Your task to perform on an android device: Search for vegetarian restaurants on Maps Image 0: 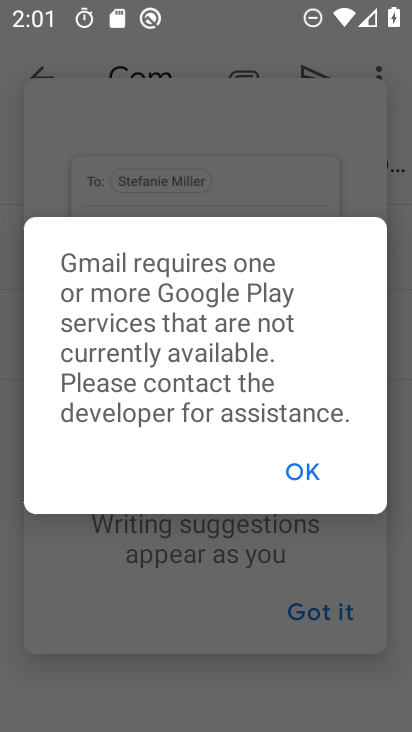
Step 0: press home button
Your task to perform on an android device: Search for vegetarian restaurants on Maps Image 1: 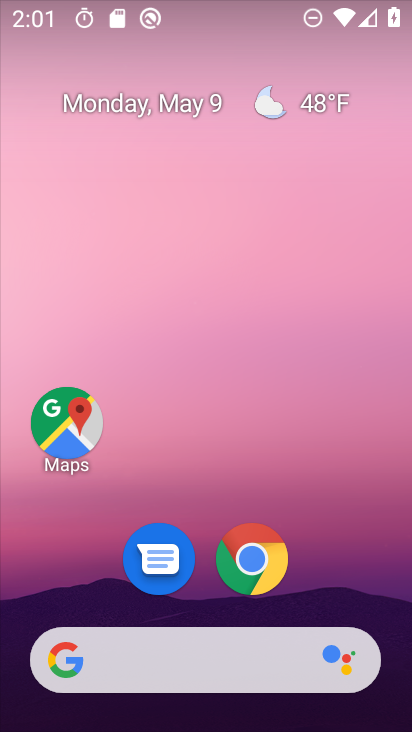
Step 1: drag from (206, 600) to (206, 40)
Your task to perform on an android device: Search for vegetarian restaurants on Maps Image 2: 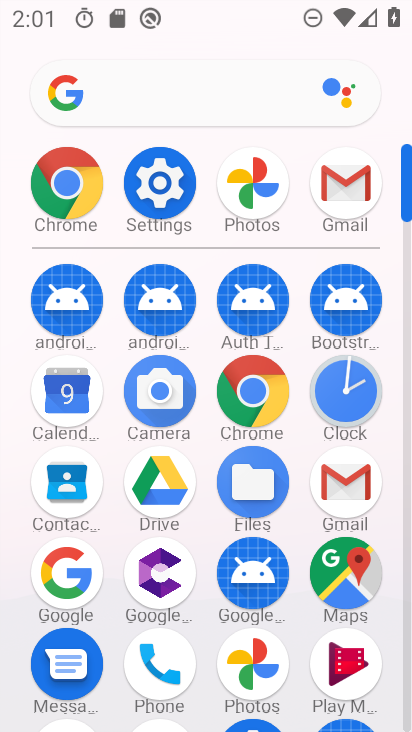
Step 2: click (336, 576)
Your task to perform on an android device: Search for vegetarian restaurants on Maps Image 3: 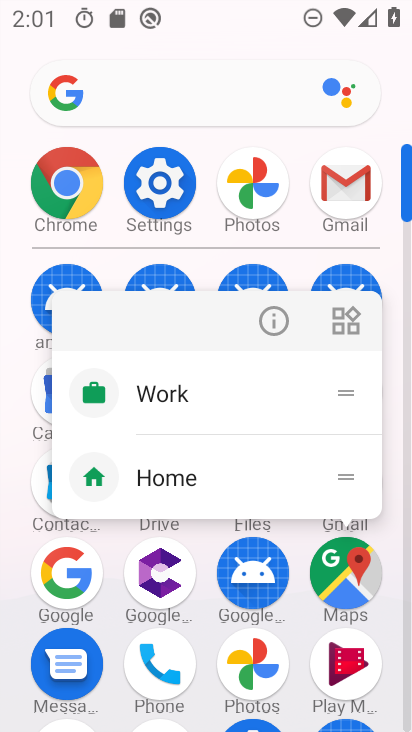
Step 3: click (273, 337)
Your task to perform on an android device: Search for vegetarian restaurants on Maps Image 4: 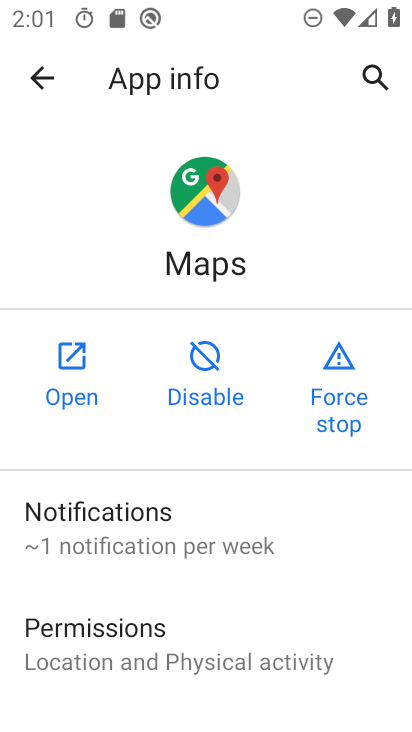
Step 4: click (71, 383)
Your task to perform on an android device: Search for vegetarian restaurants on Maps Image 5: 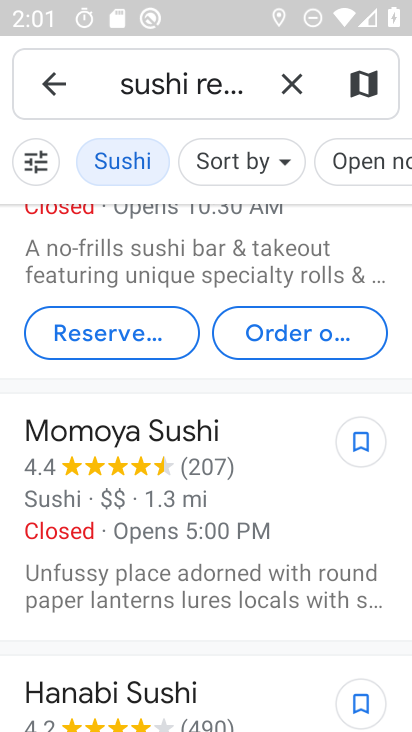
Step 5: drag from (202, 539) to (225, 183)
Your task to perform on an android device: Search for vegetarian restaurants on Maps Image 6: 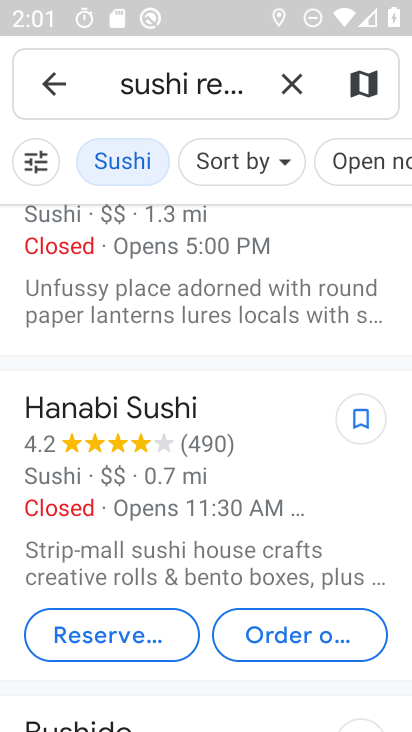
Step 6: drag from (207, 615) to (230, 153)
Your task to perform on an android device: Search for vegetarian restaurants on Maps Image 7: 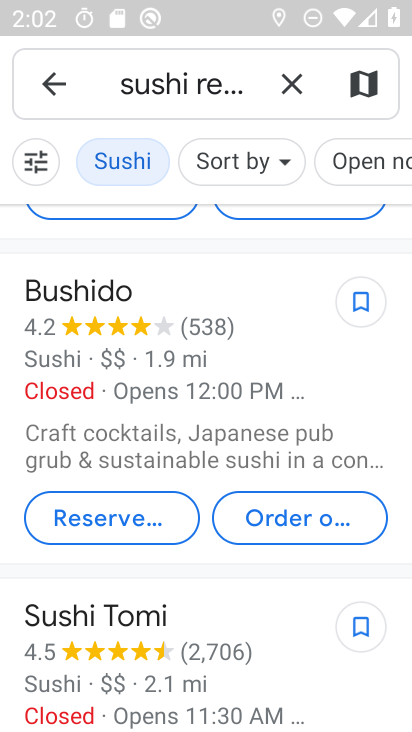
Step 7: click (286, 96)
Your task to perform on an android device: Search for vegetarian restaurants on Maps Image 8: 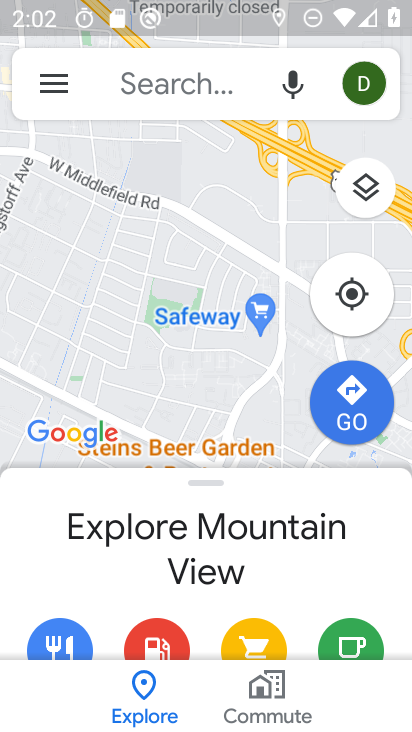
Step 8: drag from (278, 569) to (228, 210)
Your task to perform on an android device: Search for vegetarian restaurants on Maps Image 9: 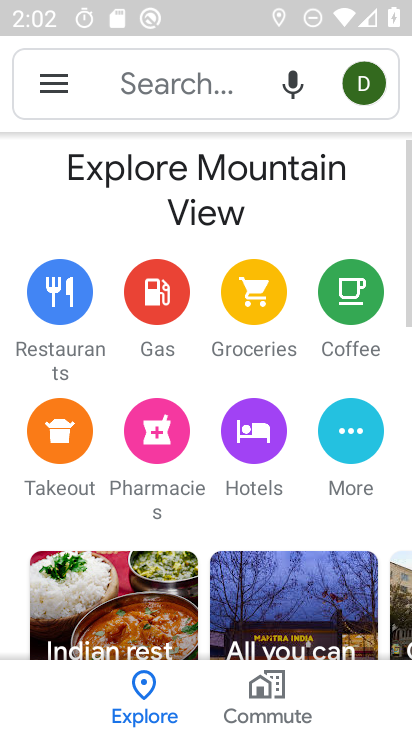
Step 9: click (192, 89)
Your task to perform on an android device: Search for vegetarian restaurants on Maps Image 10: 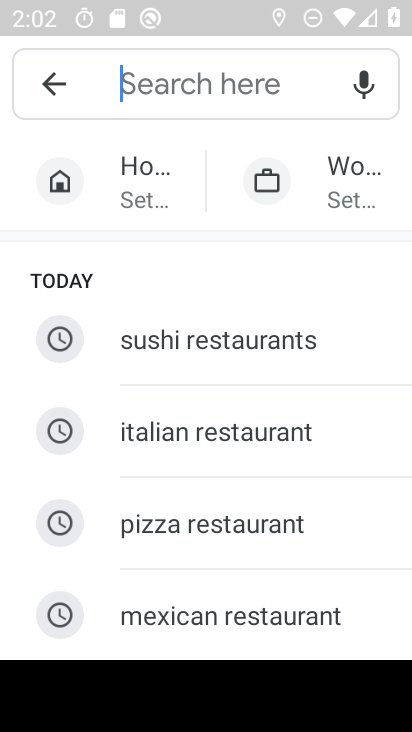
Step 10: drag from (191, 564) to (239, 117)
Your task to perform on an android device: Search for vegetarian restaurants on Maps Image 11: 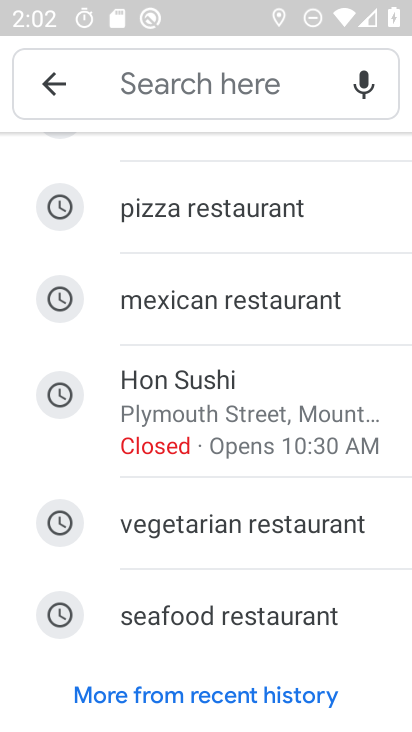
Step 11: click (199, 534)
Your task to perform on an android device: Search for vegetarian restaurants on Maps Image 12: 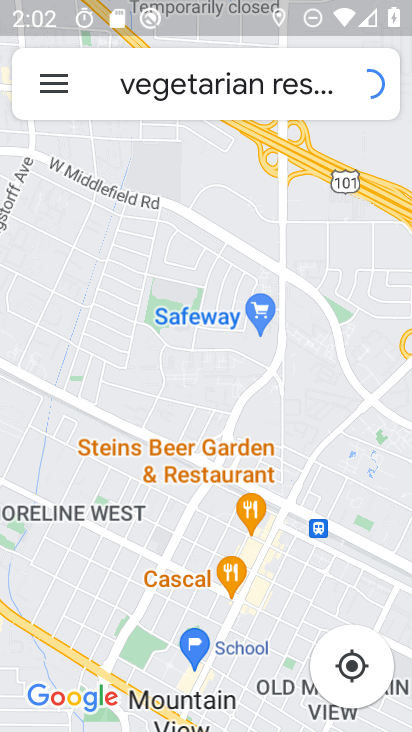
Step 12: task complete